Your task to perform on an android device: turn off sleep mode Image 0: 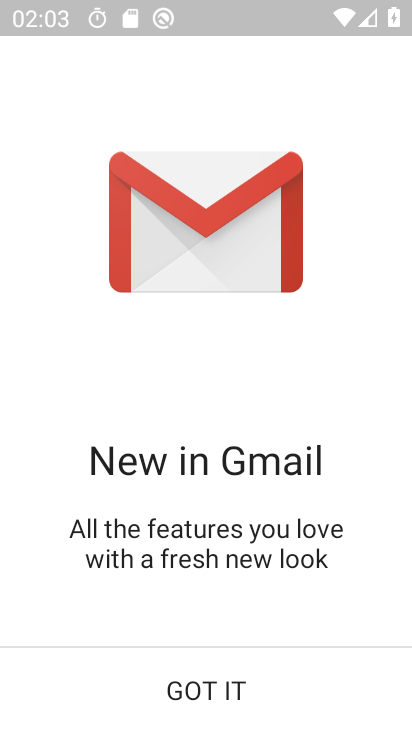
Step 0: press home button
Your task to perform on an android device: turn off sleep mode Image 1: 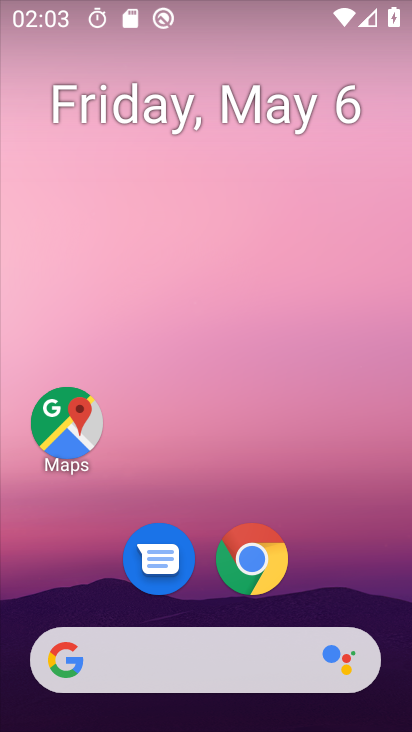
Step 1: drag from (302, 640) to (304, 8)
Your task to perform on an android device: turn off sleep mode Image 2: 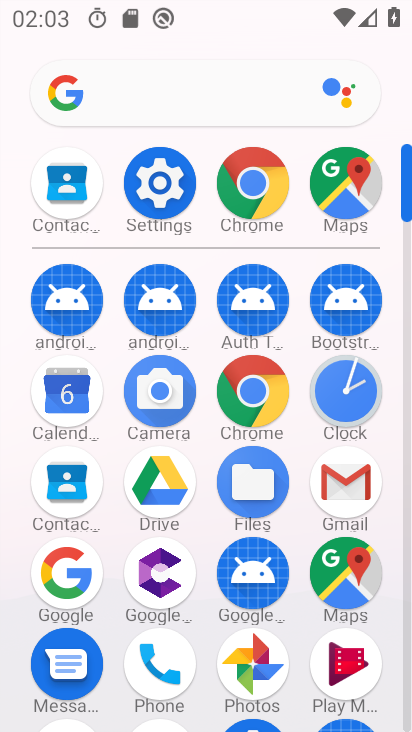
Step 2: drag from (201, 655) to (198, 294)
Your task to perform on an android device: turn off sleep mode Image 3: 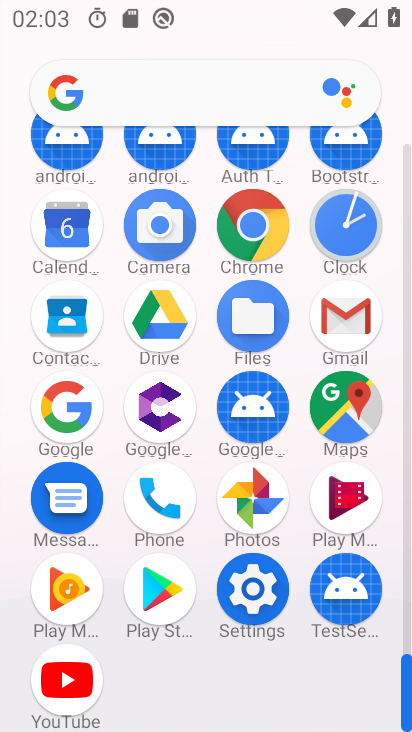
Step 3: click (245, 588)
Your task to perform on an android device: turn off sleep mode Image 4: 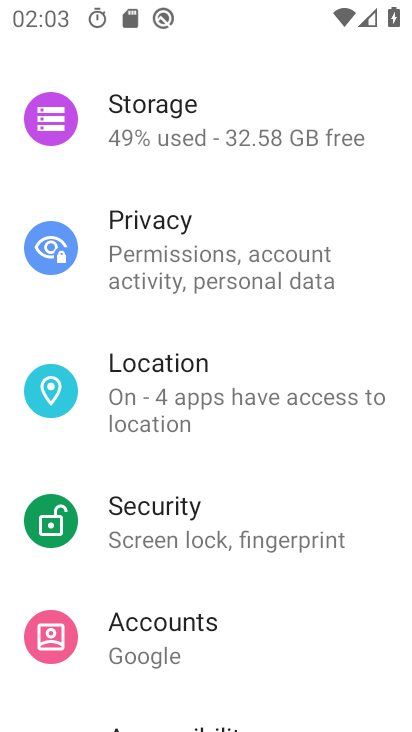
Step 4: drag from (244, 210) to (262, 683)
Your task to perform on an android device: turn off sleep mode Image 5: 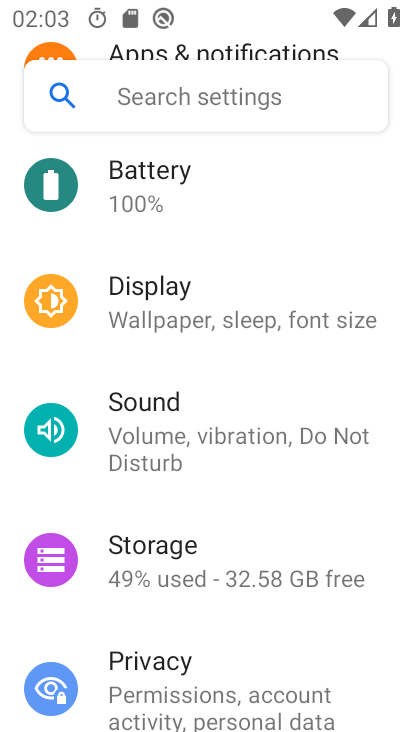
Step 5: click (269, 321)
Your task to perform on an android device: turn off sleep mode Image 6: 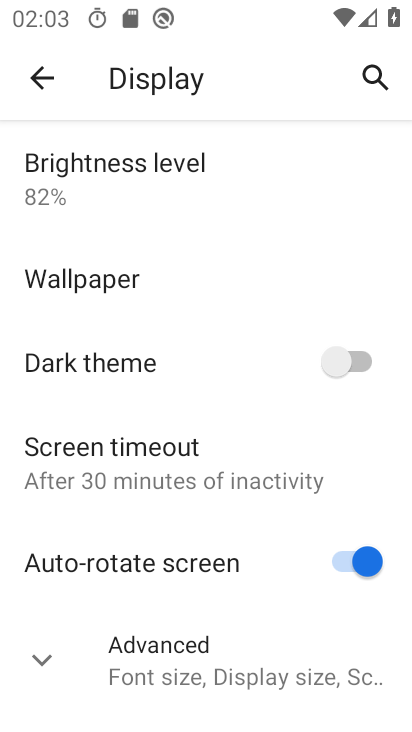
Step 6: task complete